Your task to perform on an android device: Open Google Image 0: 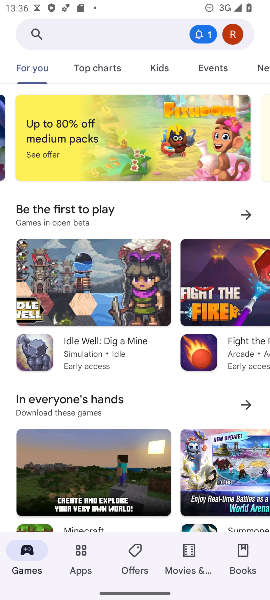
Step 0: press home button
Your task to perform on an android device: Open Google Image 1: 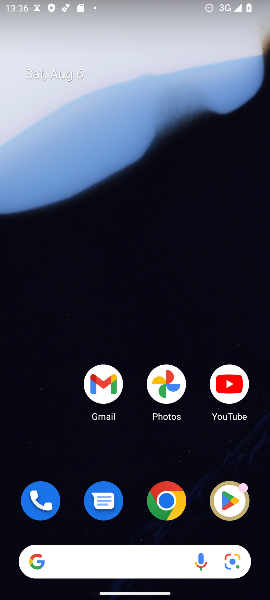
Step 1: click (128, 552)
Your task to perform on an android device: Open Google Image 2: 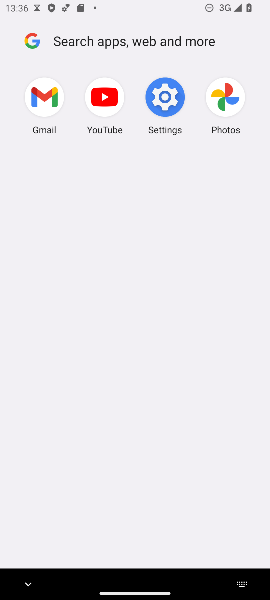
Step 2: task complete